Your task to perform on an android device: toggle show notifications on the lock screen Image 0: 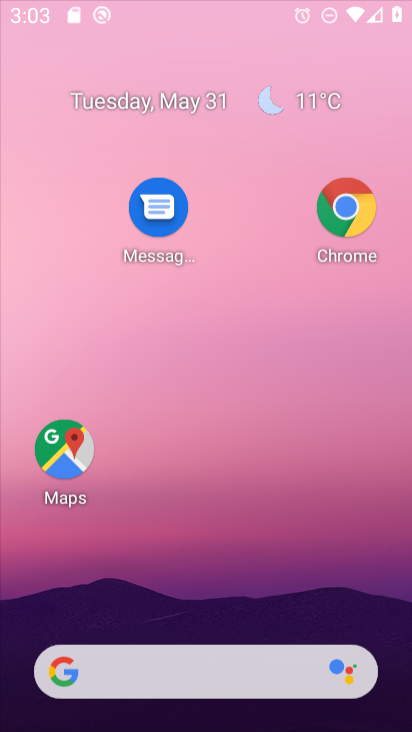
Step 0: click (207, 61)
Your task to perform on an android device: toggle show notifications on the lock screen Image 1: 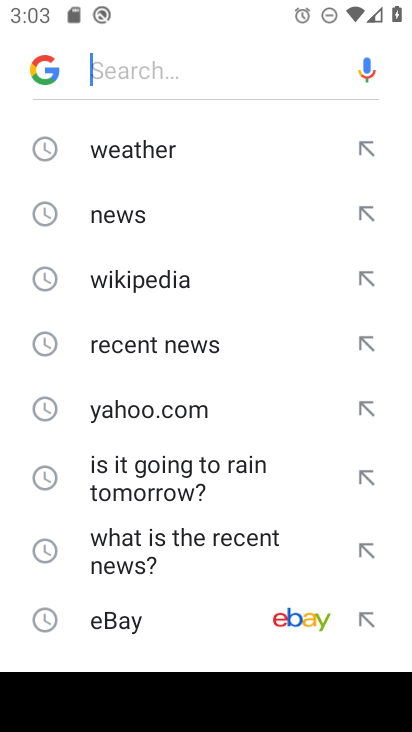
Step 1: press home button
Your task to perform on an android device: toggle show notifications on the lock screen Image 2: 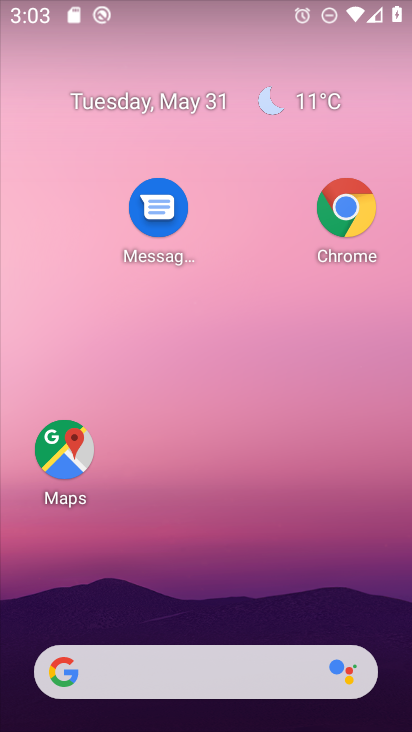
Step 2: drag from (194, 572) to (201, 1)
Your task to perform on an android device: toggle show notifications on the lock screen Image 3: 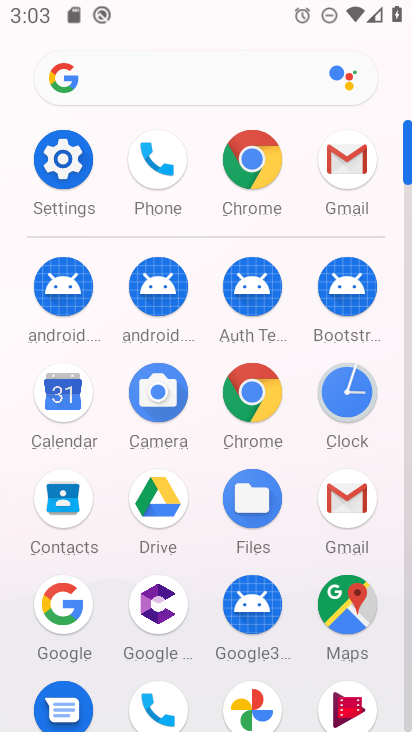
Step 3: click (70, 165)
Your task to perform on an android device: toggle show notifications on the lock screen Image 4: 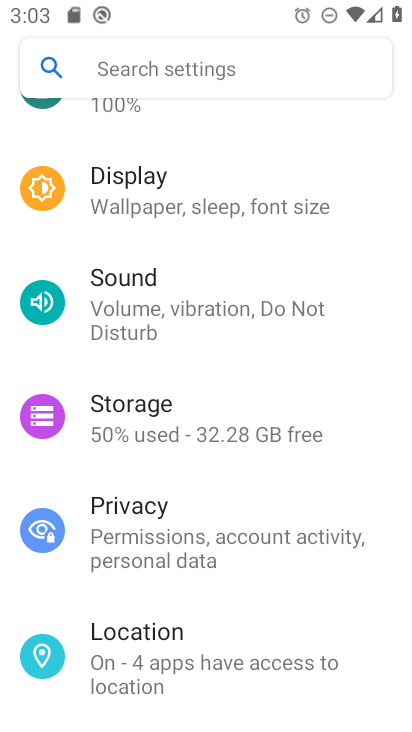
Step 4: drag from (214, 509) to (169, 15)
Your task to perform on an android device: toggle show notifications on the lock screen Image 5: 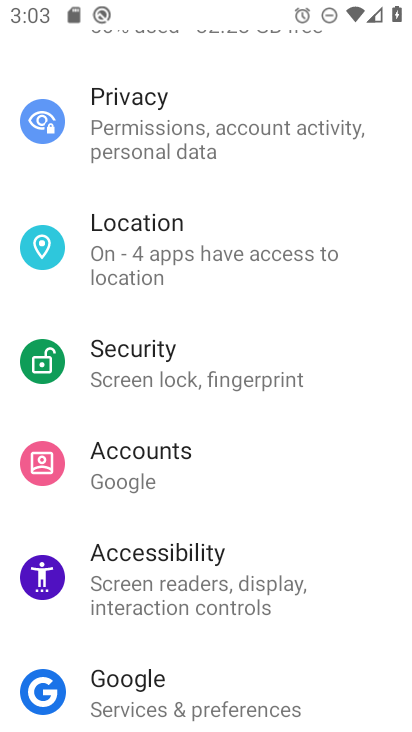
Step 5: drag from (153, 222) to (280, 710)
Your task to perform on an android device: toggle show notifications on the lock screen Image 6: 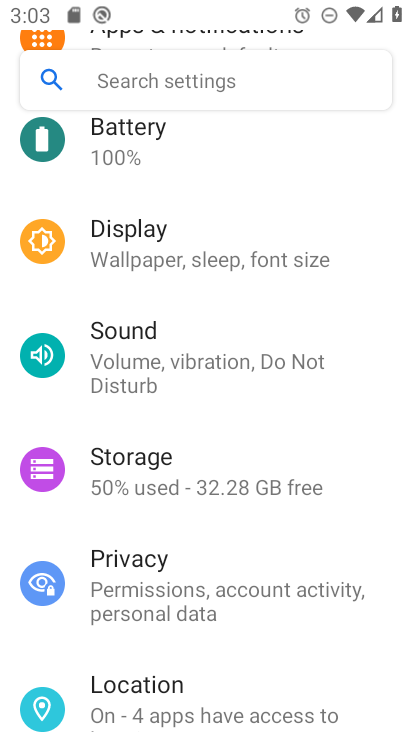
Step 6: drag from (158, 160) to (217, 594)
Your task to perform on an android device: toggle show notifications on the lock screen Image 7: 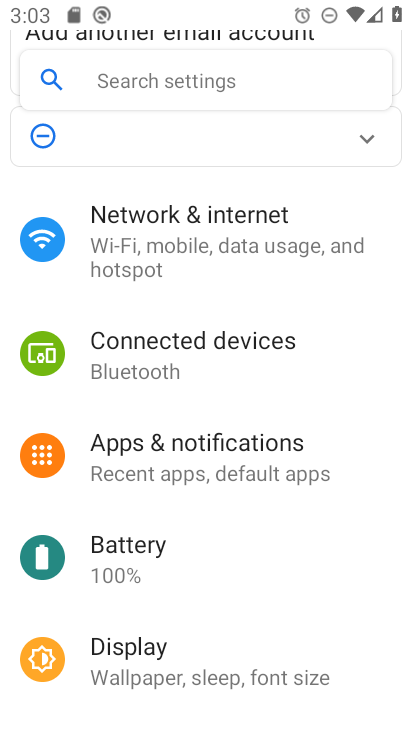
Step 7: click (192, 231)
Your task to perform on an android device: toggle show notifications on the lock screen Image 8: 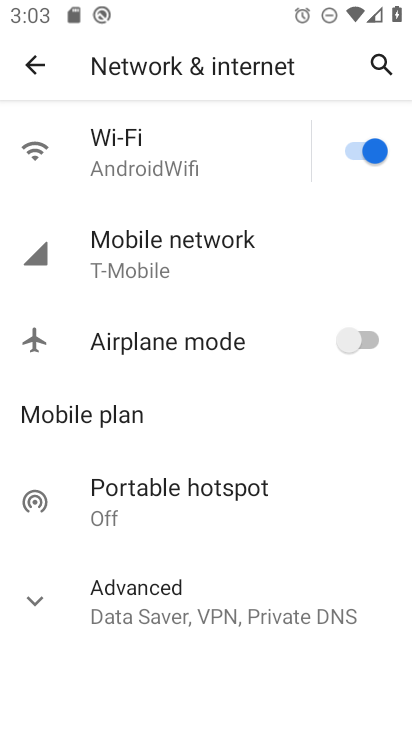
Step 8: click (157, 599)
Your task to perform on an android device: toggle show notifications on the lock screen Image 9: 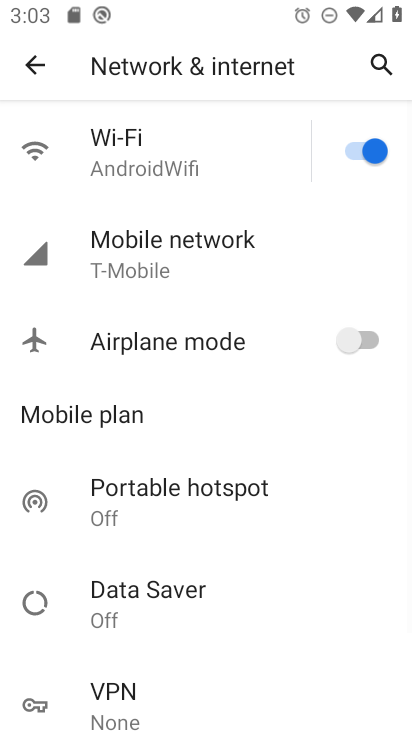
Step 9: drag from (164, 544) to (202, 5)
Your task to perform on an android device: toggle show notifications on the lock screen Image 10: 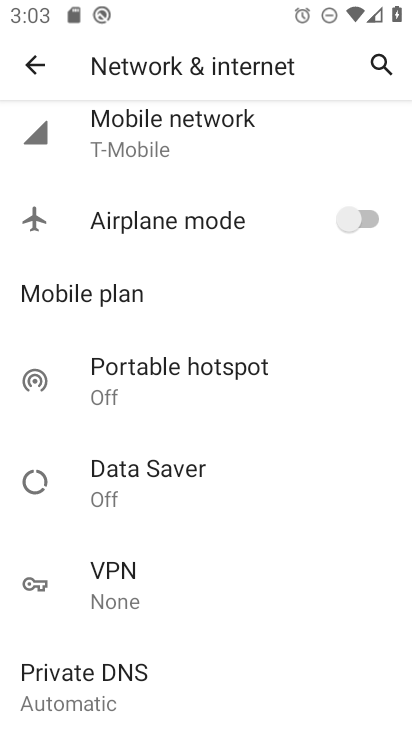
Step 10: click (20, 82)
Your task to perform on an android device: toggle show notifications on the lock screen Image 11: 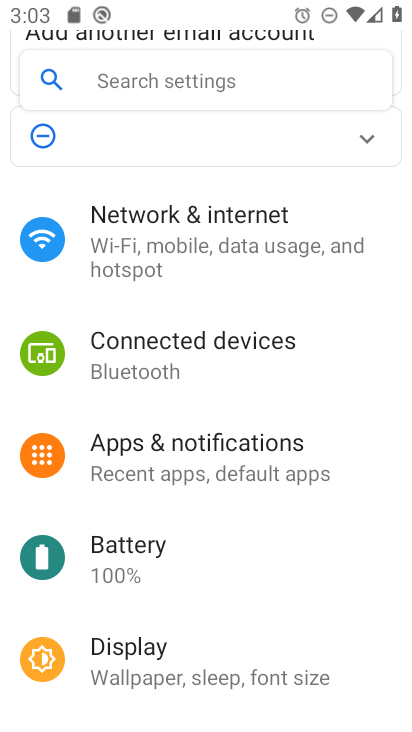
Step 11: click (212, 445)
Your task to perform on an android device: toggle show notifications on the lock screen Image 12: 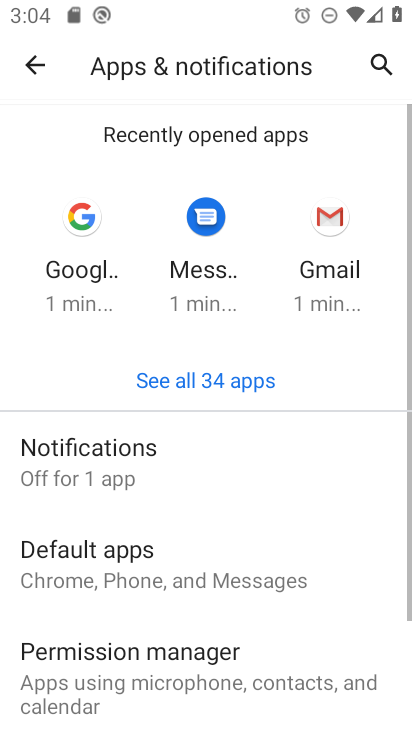
Step 12: click (225, 409)
Your task to perform on an android device: toggle show notifications on the lock screen Image 13: 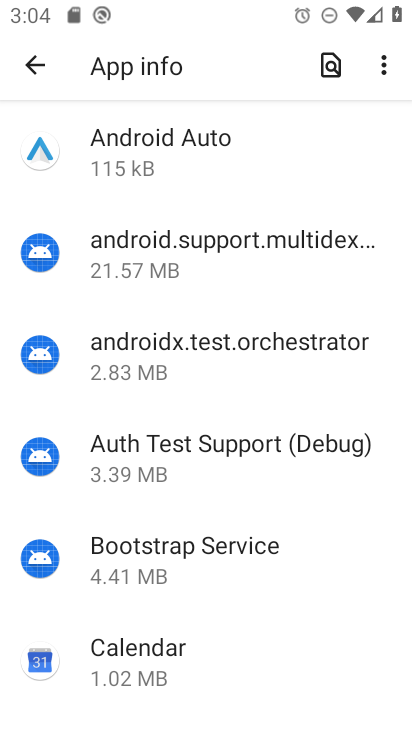
Step 13: click (40, 76)
Your task to perform on an android device: toggle show notifications on the lock screen Image 14: 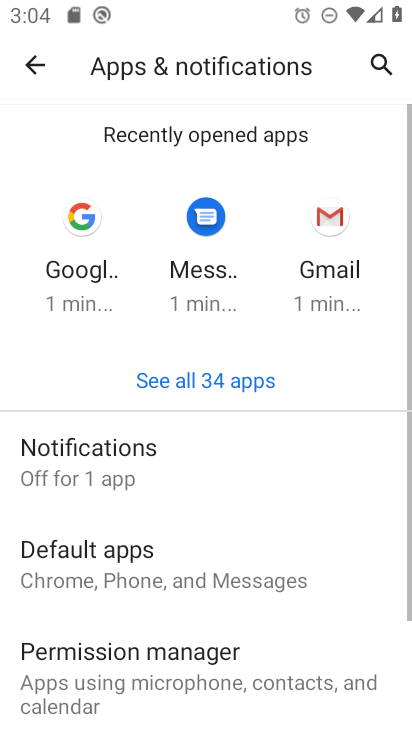
Step 14: click (171, 471)
Your task to perform on an android device: toggle show notifications on the lock screen Image 15: 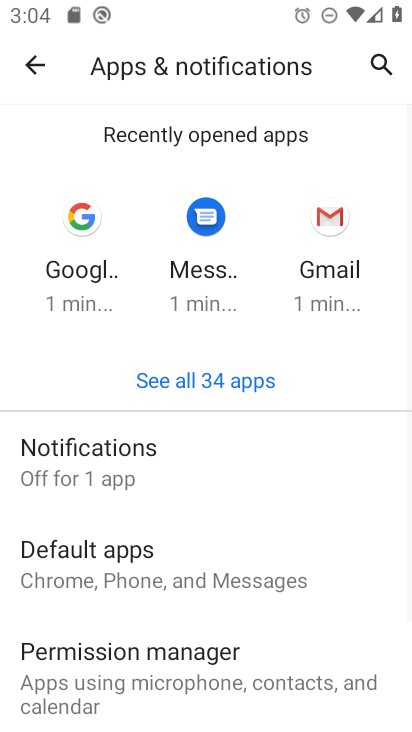
Step 15: click (171, 471)
Your task to perform on an android device: toggle show notifications on the lock screen Image 16: 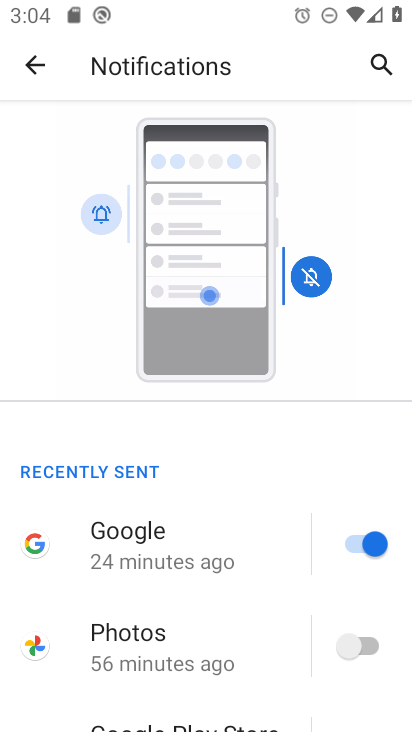
Step 16: drag from (237, 662) to (227, 2)
Your task to perform on an android device: toggle show notifications on the lock screen Image 17: 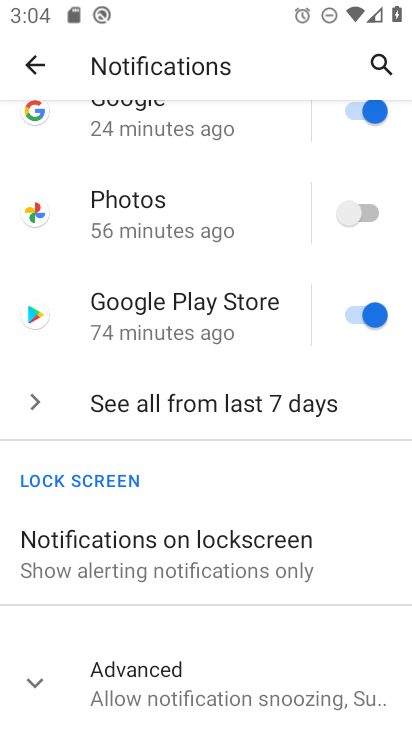
Step 17: click (256, 533)
Your task to perform on an android device: toggle show notifications on the lock screen Image 18: 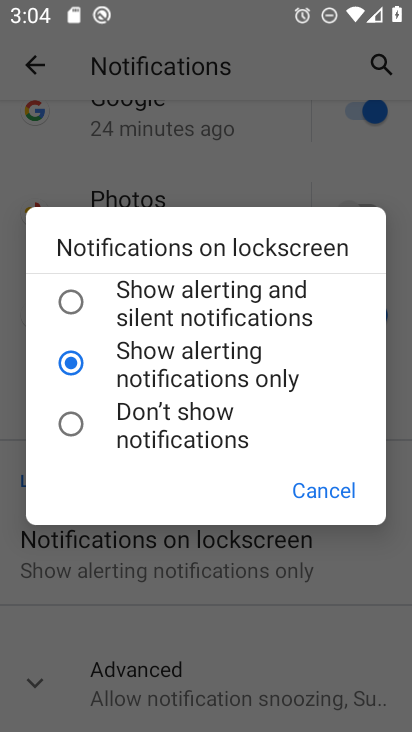
Step 18: click (136, 300)
Your task to perform on an android device: toggle show notifications on the lock screen Image 19: 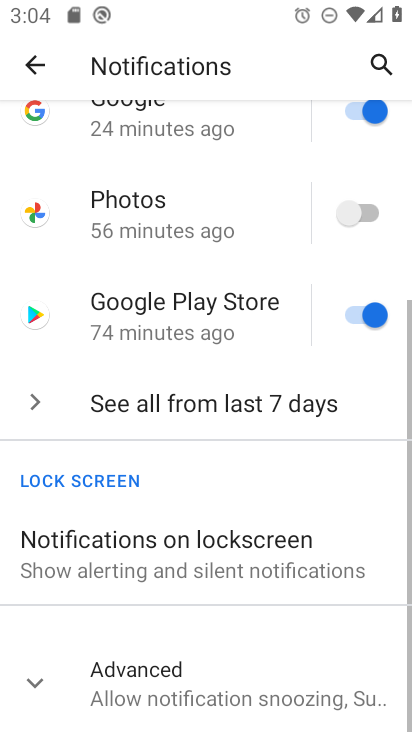
Step 19: task complete